Your task to perform on an android device: Is it going to rain today? Image 0: 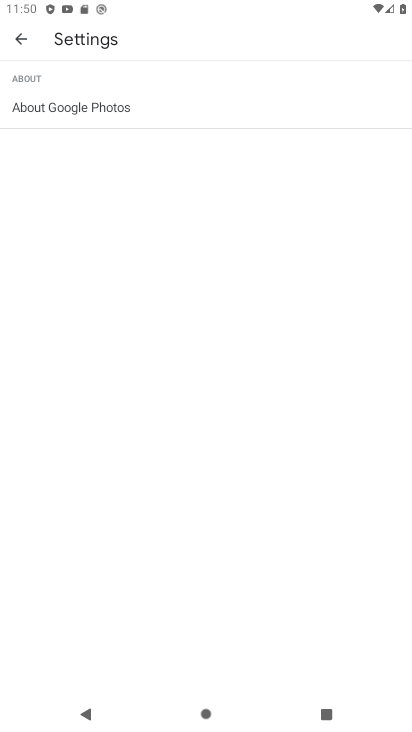
Step 0: press back button
Your task to perform on an android device: Is it going to rain today? Image 1: 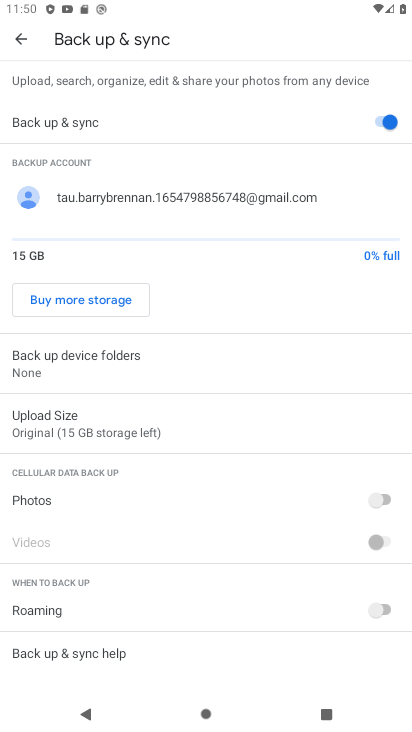
Step 1: press back button
Your task to perform on an android device: Is it going to rain today? Image 2: 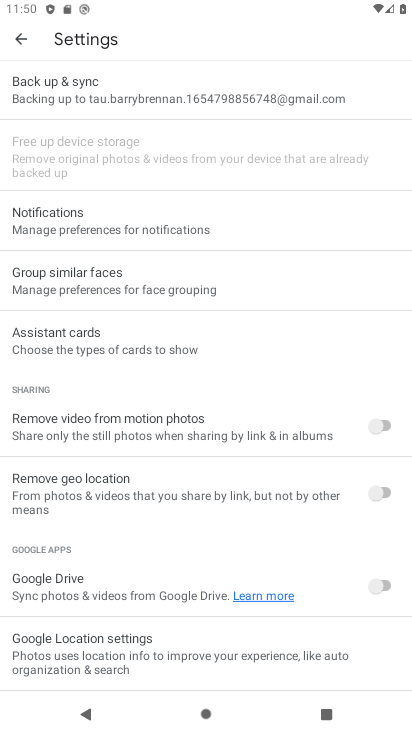
Step 2: press back button
Your task to perform on an android device: Is it going to rain today? Image 3: 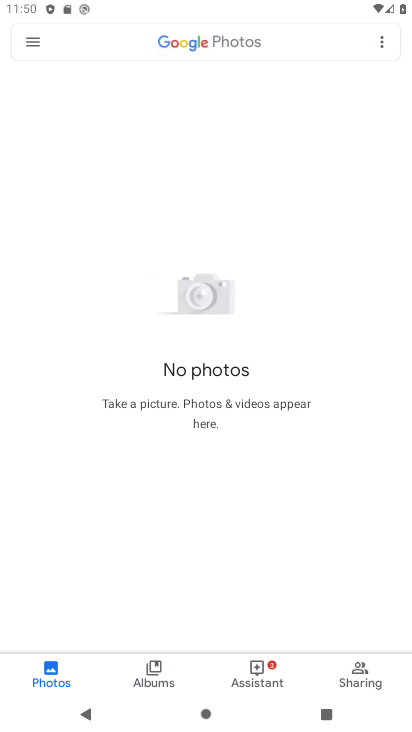
Step 3: press back button
Your task to perform on an android device: Is it going to rain today? Image 4: 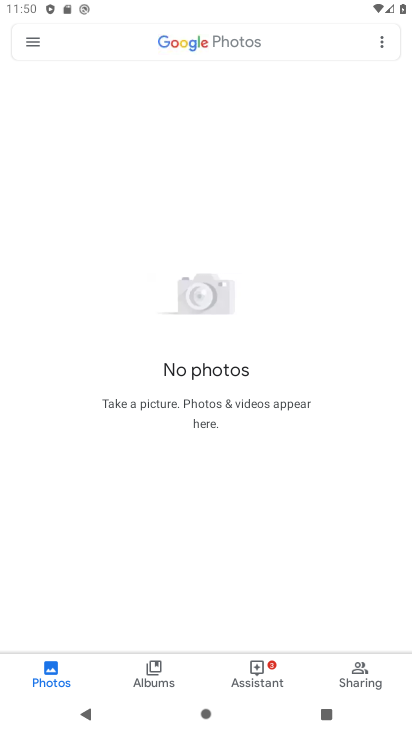
Step 4: press back button
Your task to perform on an android device: Is it going to rain today? Image 5: 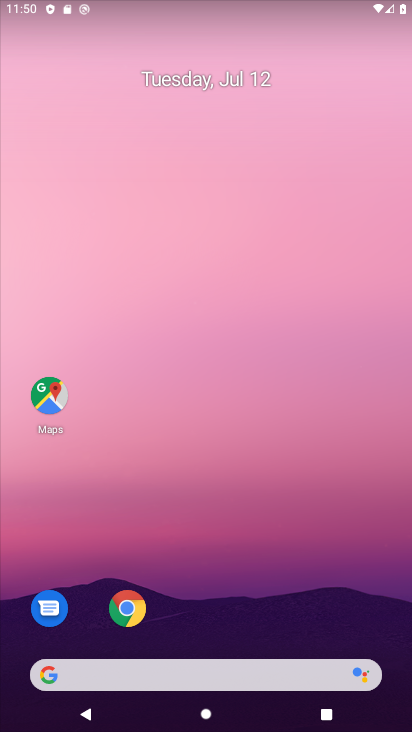
Step 5: drag from (225, 616) to (286, 62)
Your task to perform on an android device: Is it going to rain today? Image 6: 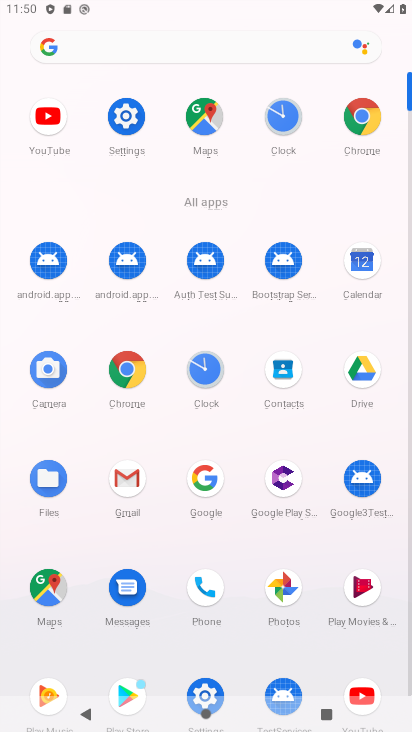
Step 6: click (105, 33)
Your task to perform on an android device: Is it going to rain today? Image 7: 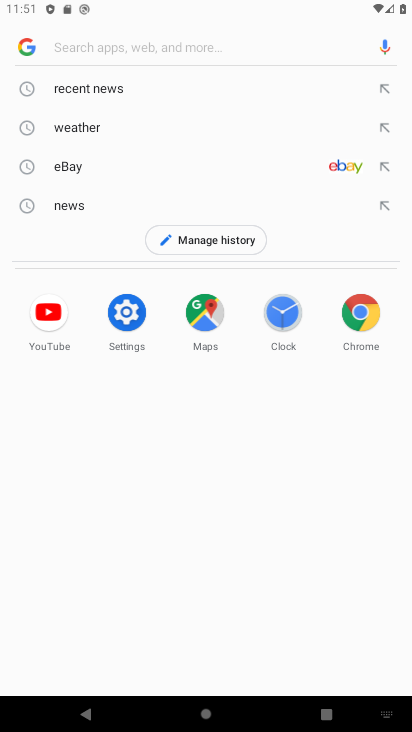
Step 7: click (86, 123)
Your task to perform on an android device: Is it going to rain today? Image 8: 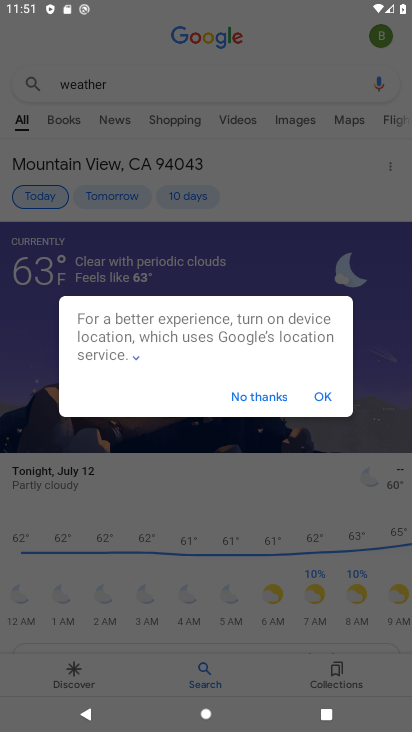
Step 8: click (257, 404)
Your task to perform on an android device: Is it going to rain today? Image 9: 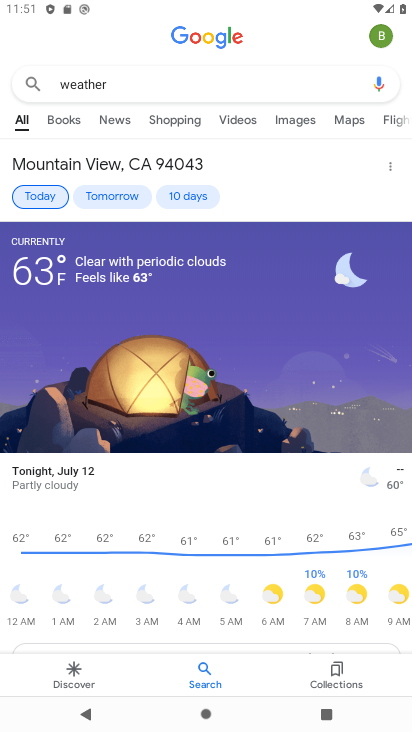
Step 9: task complete